Your task to perform on an android device: turn off smart reply in the gmail app Image 0: 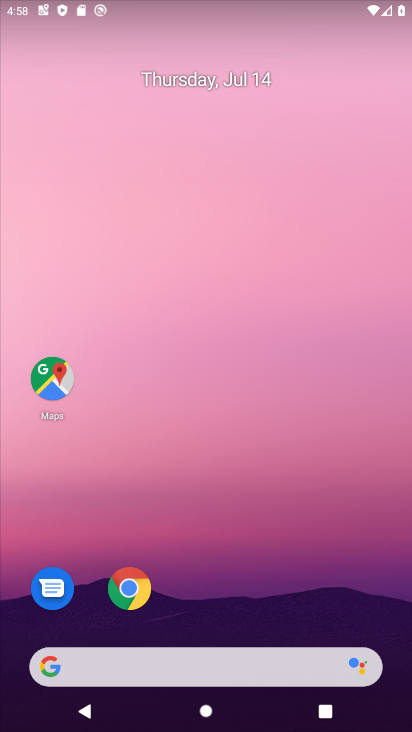
Step 0: drag from (202, 463) to (252, 258)
Your task to perform on an android device: turn off smart reply in the gmail app Image 1: 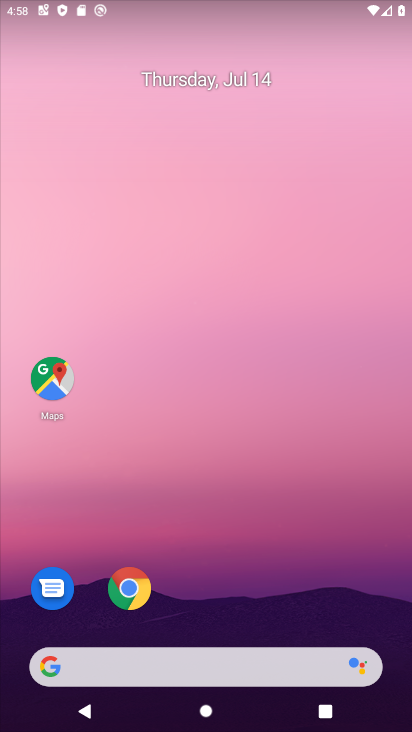
Step 1: drag from (221, 646) to (268, 197)
Your task to perform on an android device: turn off smart reply in the gmail app Image 2: 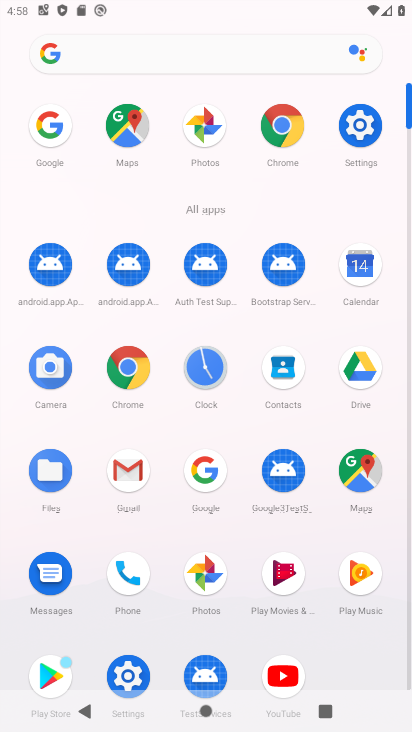
Step 2: click (122, 464)
Your task to perform on an android device: turn off smart reply in the gmail app Image 3: 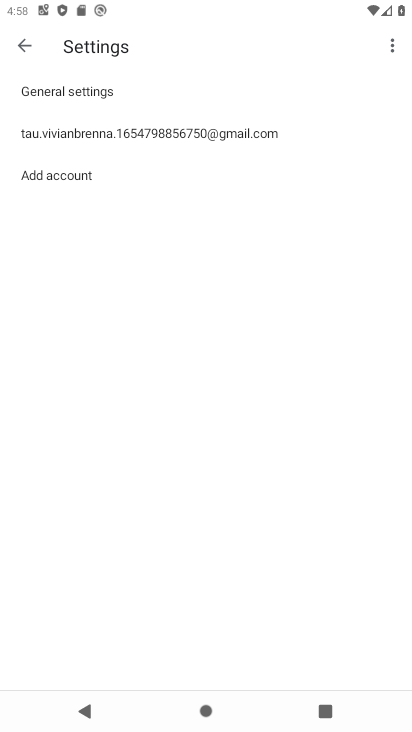
Step 3: click (46, 126)
Your task to perform on an android device: turn off smart reply in the gmail app Image 4: 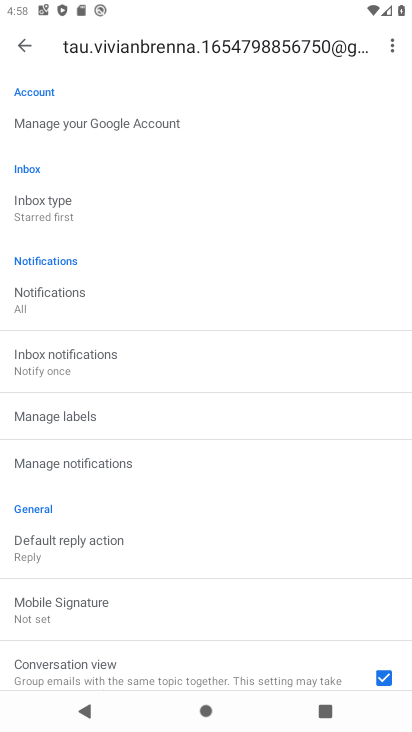
Step 4: drag from (80, 514) to (96, 158)
Your task to perform on an android device: turn off smart reply in the gmail app Image 5: 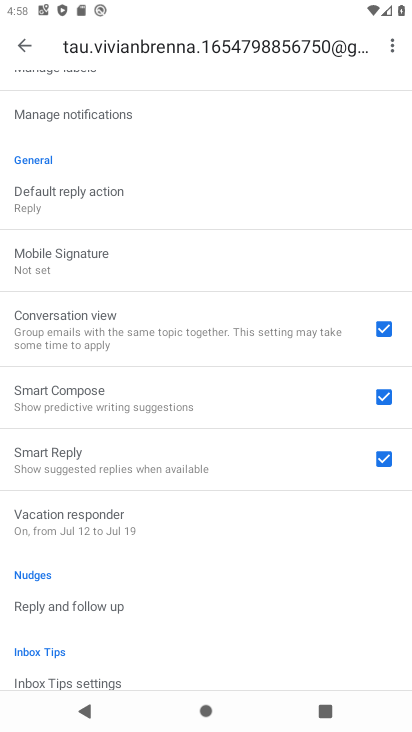
Step 5: click (378, 459)
Your task to perform on an android device: turn off smart reply in the gmail app Image 6: 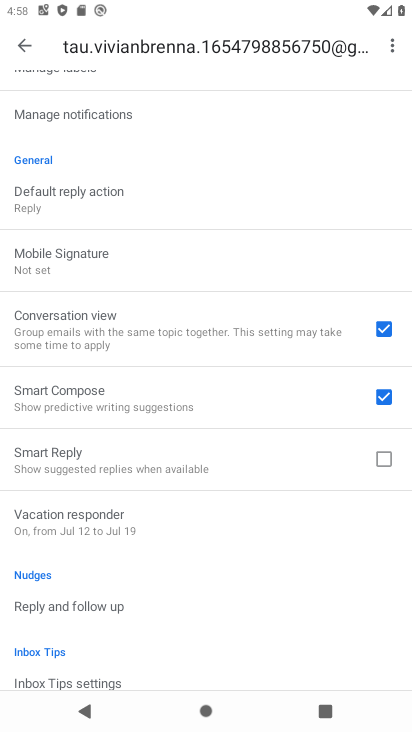
Step 6: task complete